Your task to perform on an android device: Open my contact list Image 0: 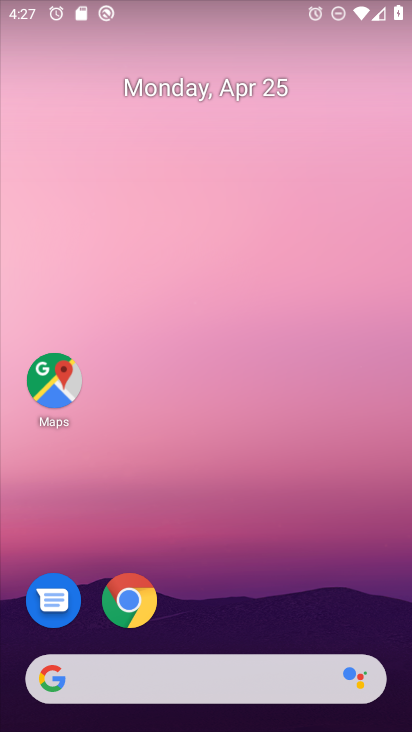
Step 0: drag from (259, 537) to (203, 51)
Your task to perform on an android device: Open my contact list Image 1: 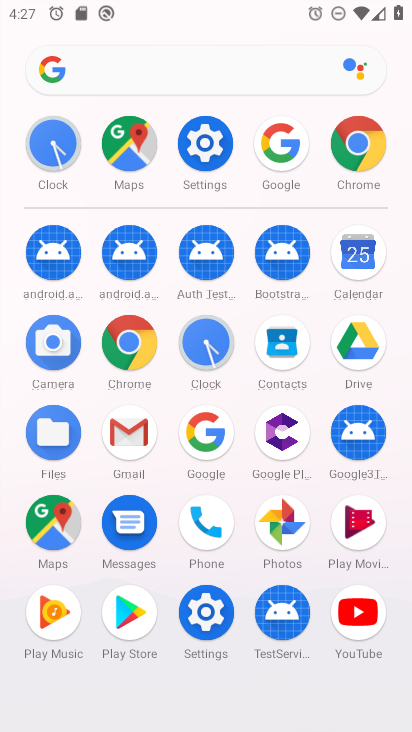
Step 1: click (279, 339)
Your task to perform on an android device: Open my contact list Image 2: 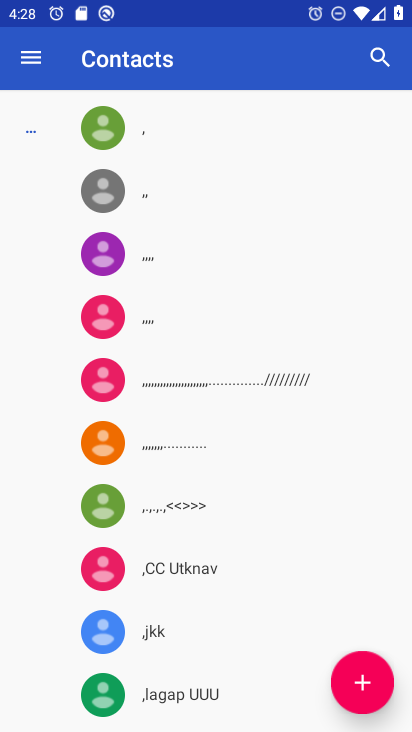
Step 2: task complete